Your task to perform on an android device: change text size in settings app Image 0: 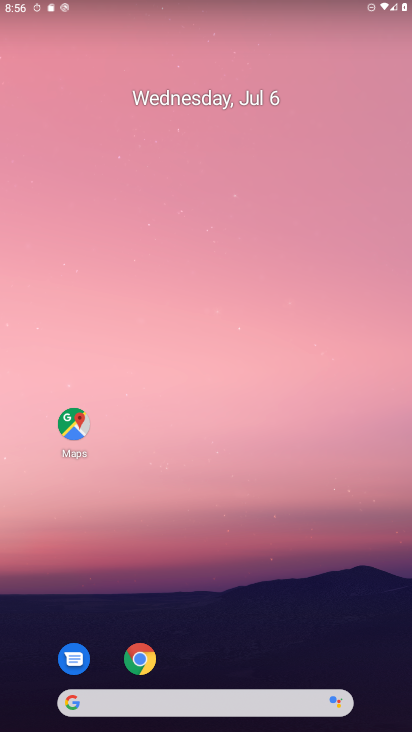
Step 0: drag from (358, 627) to (344, 138)
Your task to perform on an android device: change text size in settings app Image 1: 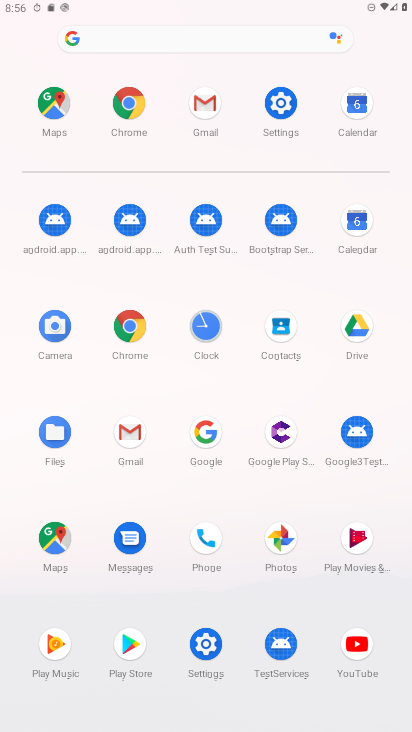
Step 1: click (210, 636)
Your task to perform on an android device: change text size in settings app Image 2: 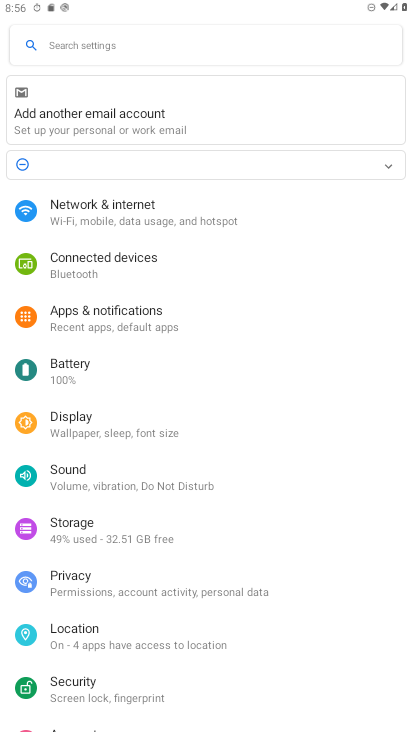
Step 2: drag from (336, 605) to (360, 403)
Your task to perform on an android device: change text size in settings app Image 3: 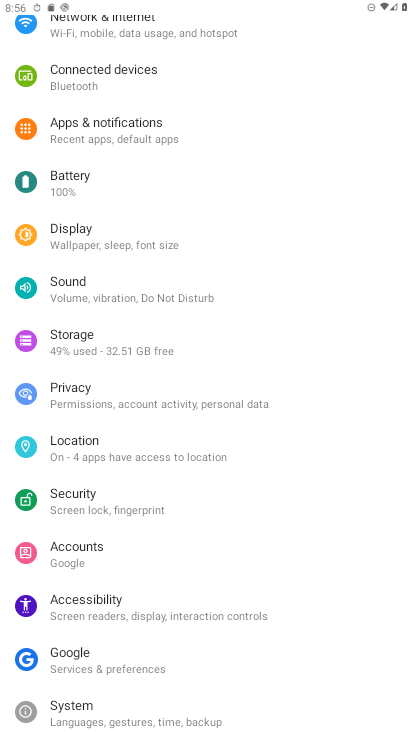
Step 3: drag from (356, 546) to (345, 356)
Your task to perform on an android device: change text size in settings app Image 4: 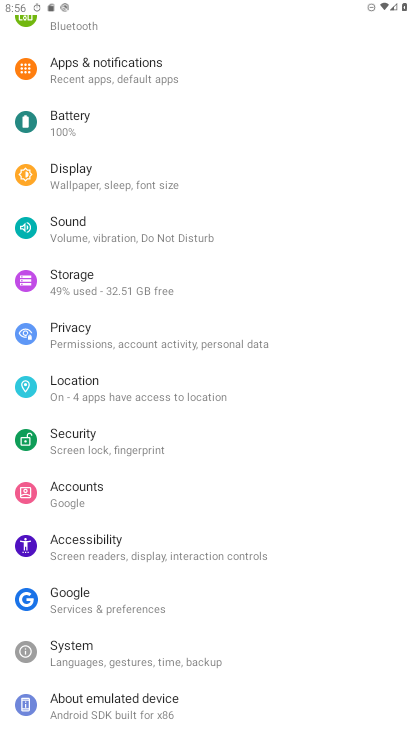
Step 4: drag from (341, 200) to (342, 350)
Your task to perform on an android device: change text size in settings app Image 5: 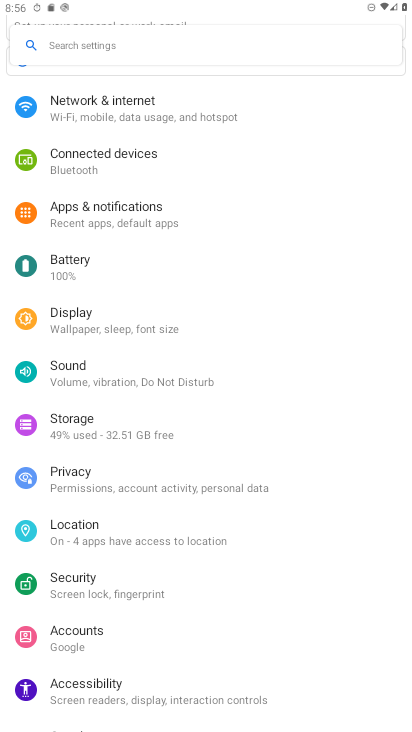
Step 5: drag from (322, 165) to (327, 329)
Your task to perform on an android device: change text size in settings app Image 6: 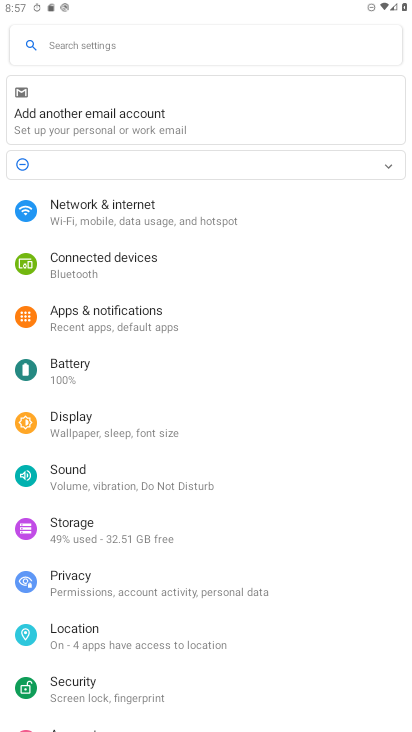
Step 6: drag from (320, 268) to (335, 468)
Your task to perform on an android device: change text size in settings app Image 7: 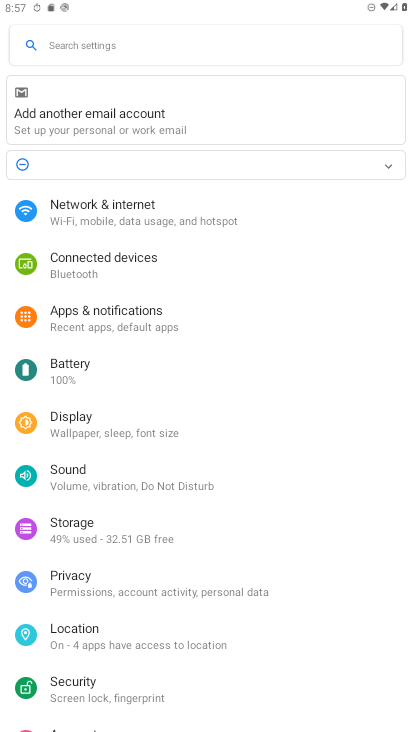
Step 7: drag from (328, 543) to (329, 319)
Your task to perform on an android device: change text size in settings app Image 8: 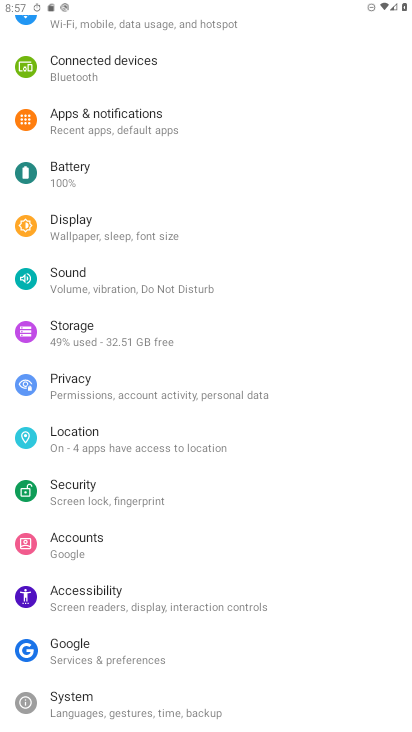
Step 8: drag from (327, 556) to (330, 311)
Your task to perform on an android device: change text size in settings app Image 9: 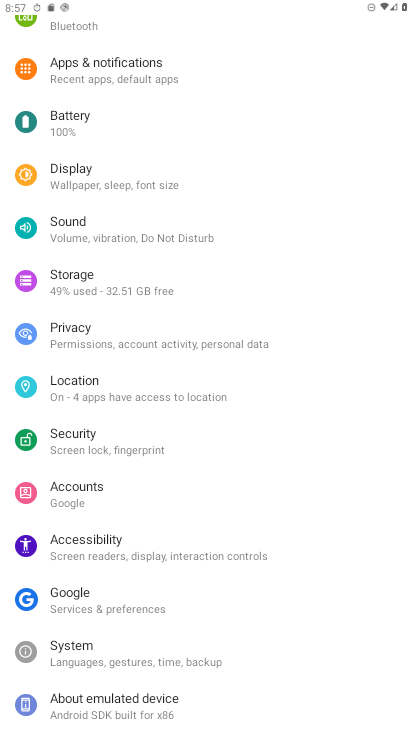
Step 9: drag from (336, 217) to (339, 355)
Your task to perform on an android device: change text size in settings app Image 10: 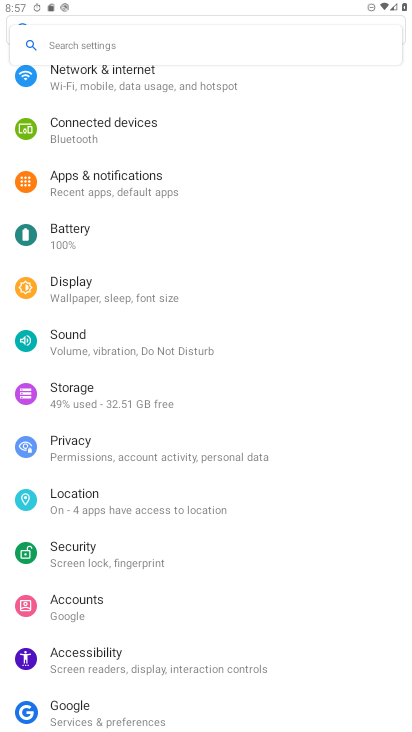
Step 10: click (159, 290)
Your task to perform on an android device: change text size in settings app Image 11: 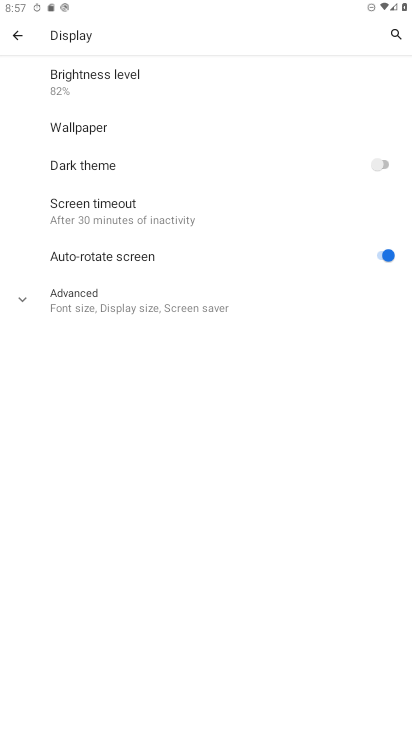
Step 11: click (108, 302)
Your task to perform on an android device: change text size in settings app Image 12: 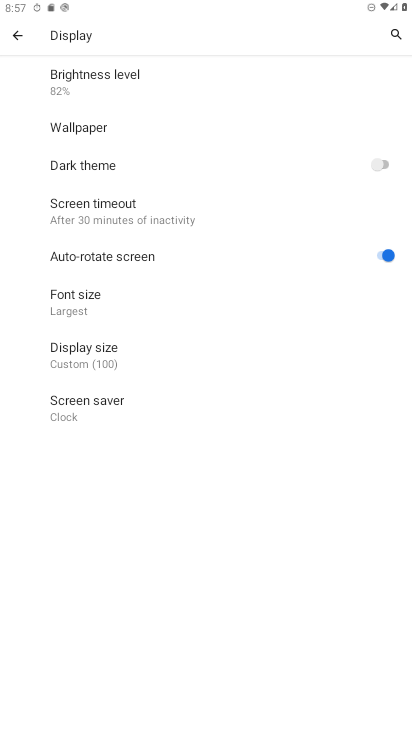
Step 12: click (109, 306)
Your task to perform on an android device: change text size in settings app Image 13: 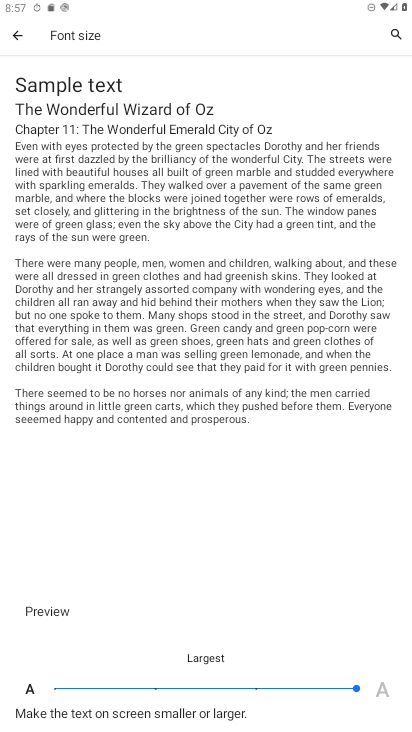
Step 13: click (231, 687)
Your task to perform on an android device: change text size in settings app Image 14: 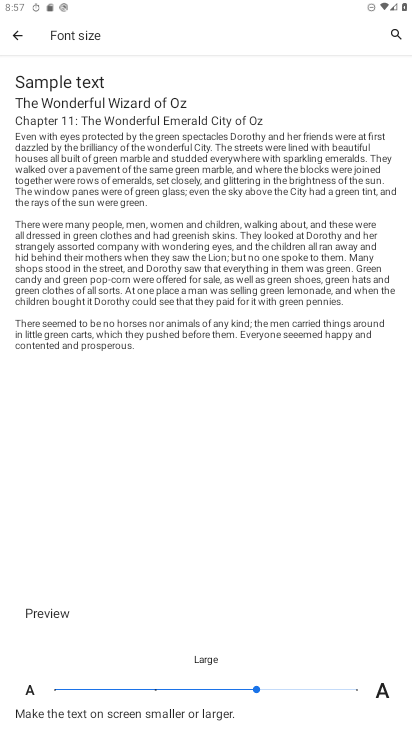
Step 14: task complete